Your task to perform on an android device: Add "macbook pro 15 inch" to the cart on target Image 0: 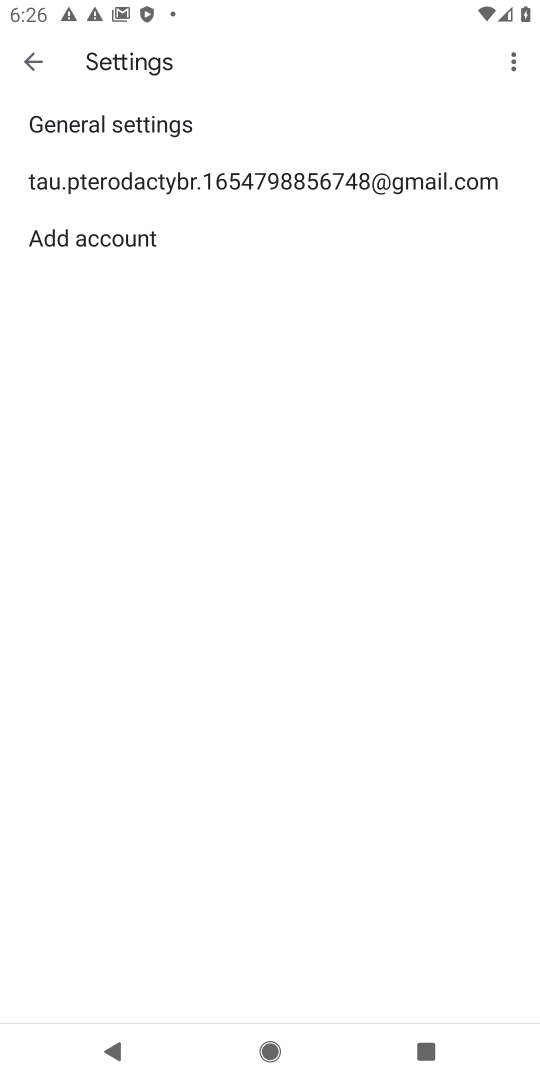
Step 0: press home button
Your task to perform on an android device: Add "macbook pro 15 inch" to the cart on target Image 1: 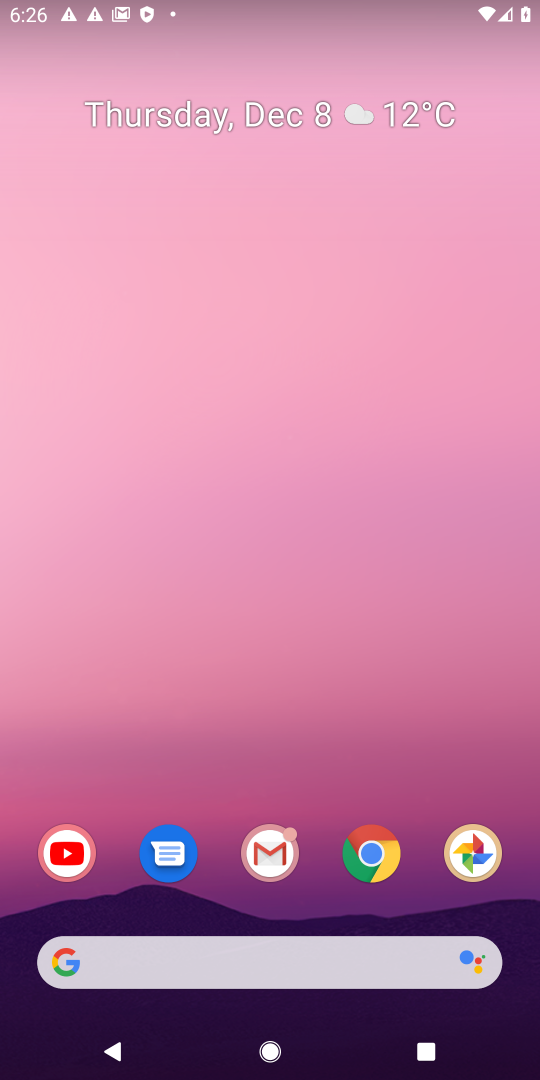
Step 1: click (114, 951)
Your task to perform on an android device: Add "macbook pro 15 inch" to the cart on target Image 2: 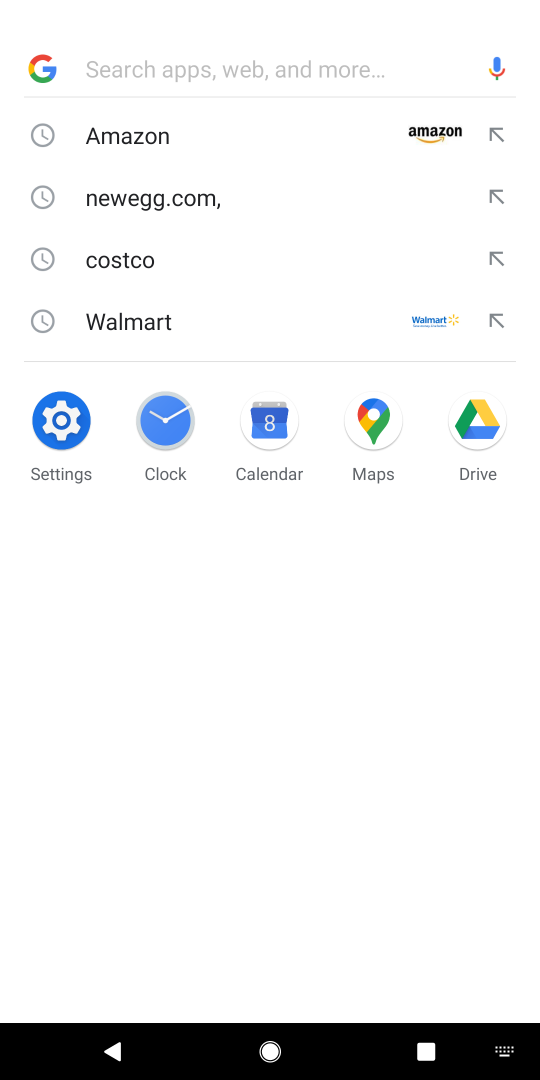
Step 2: type "target"
Your task to perform on an android device: Add "macbook pro 15 inch" to the cart on target Image 3: 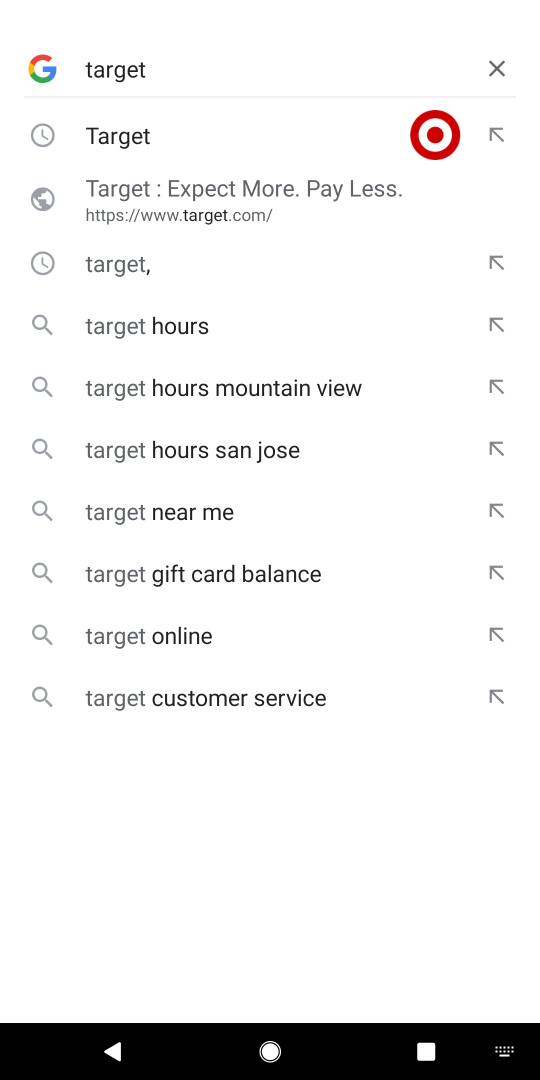
Step 3: click (122, 130)
Your task to perform on an android device: Add "macbook pro 15 inch" to the cart on target Image 4: 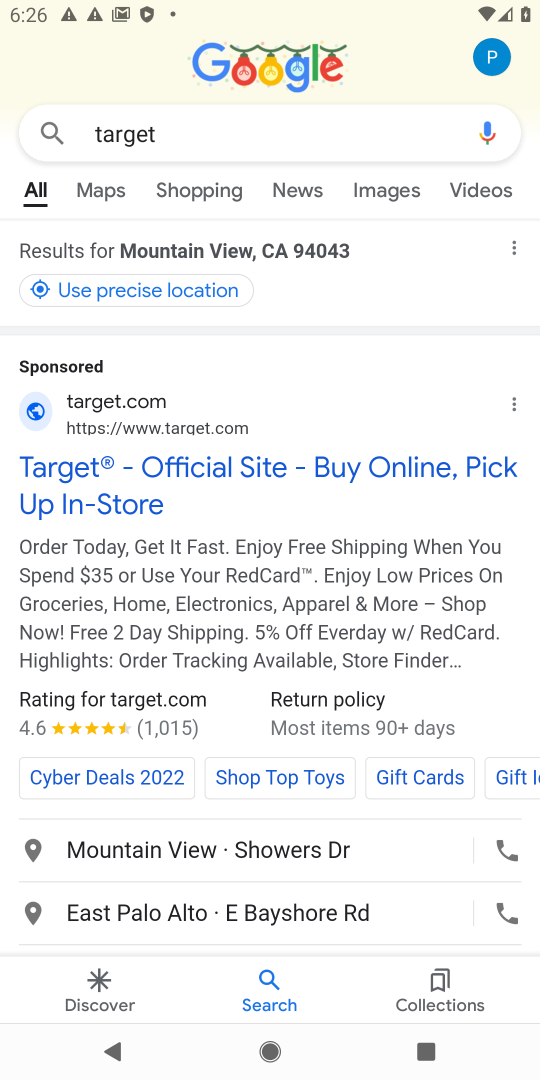
Step 4: click (91, 388)
Your task to perform on an android device: Add "macbook pro 15 inch" to the cart on target Image 5: 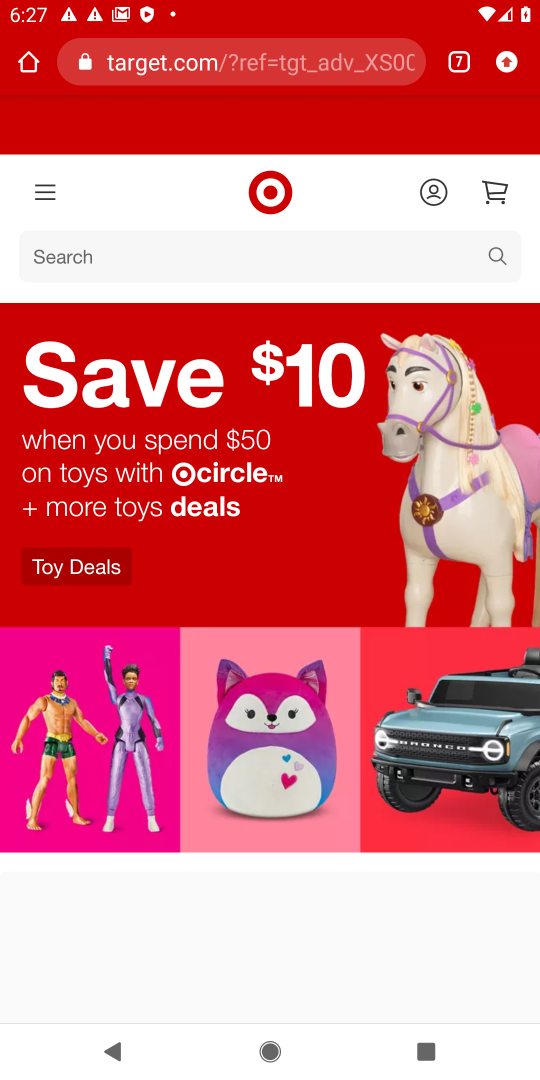
Step 5: click (124, 253)
Your task to perform on an android device: Add "macbook pro 15 inch" to the cart on target Image 6: 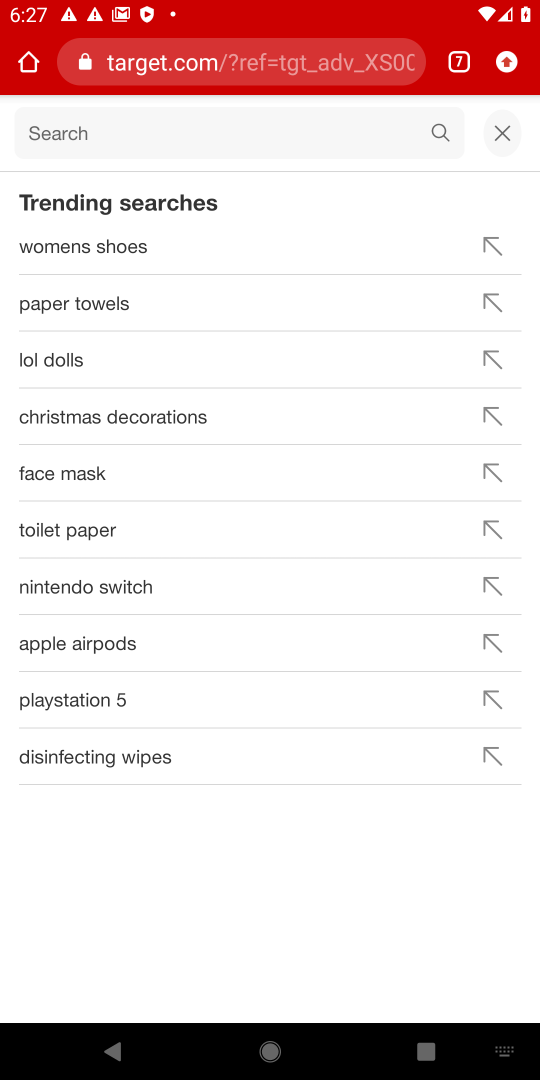
Step 6: type "macbook pro 15 inch"
Your task to perform on an android device: Add "macbook pro 15 inch" to the cart on target Image 7: 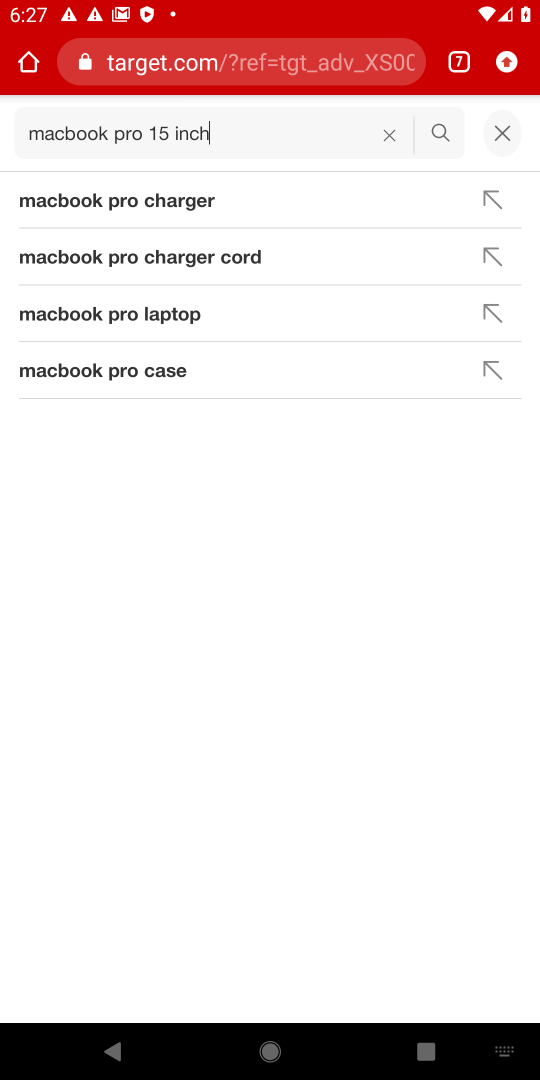
Step 7: click (430, 126)
Your task to perform on an android device: Add "macbook pro 15 inch" to the cart on target Image 8: 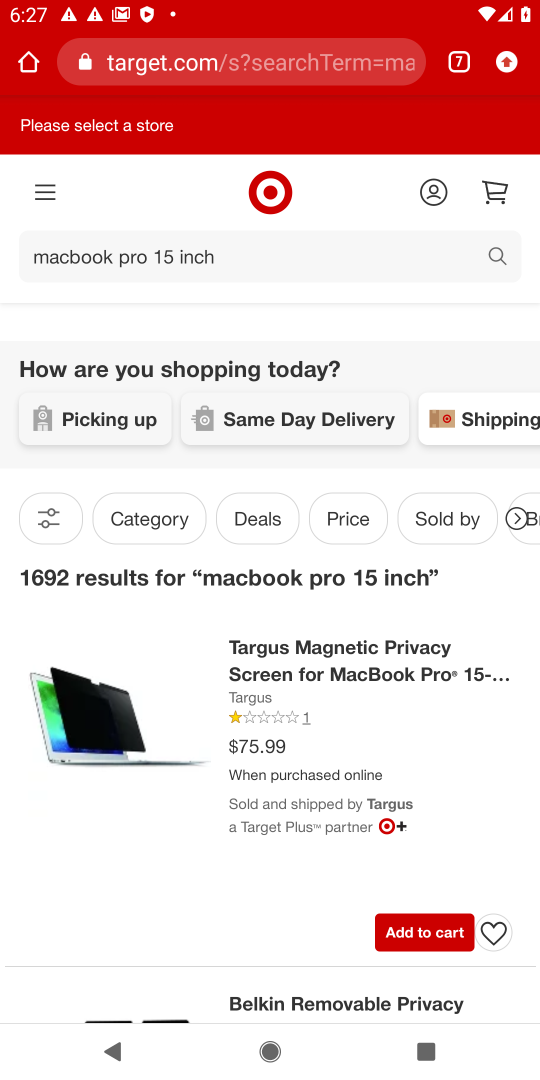
Step 8: click (405, 928)
Your task to perform on an android device: Add "macbook pro 15 inch" to the cart on target Image 9: 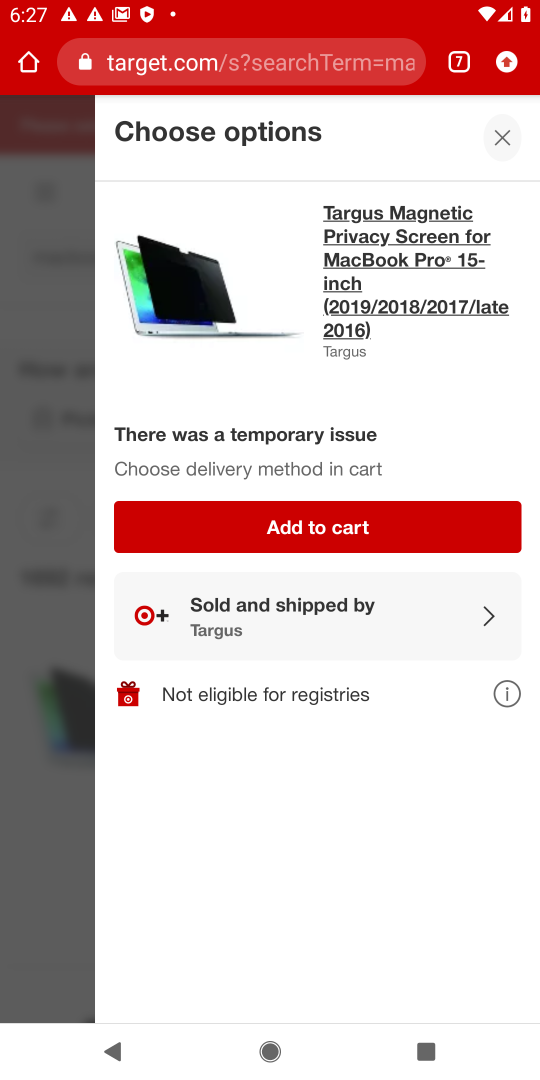
Step 9: click (361, 518)
Your task to perform on an android device: Add "macbook pro 15 inch" to the cart on target Image 10: 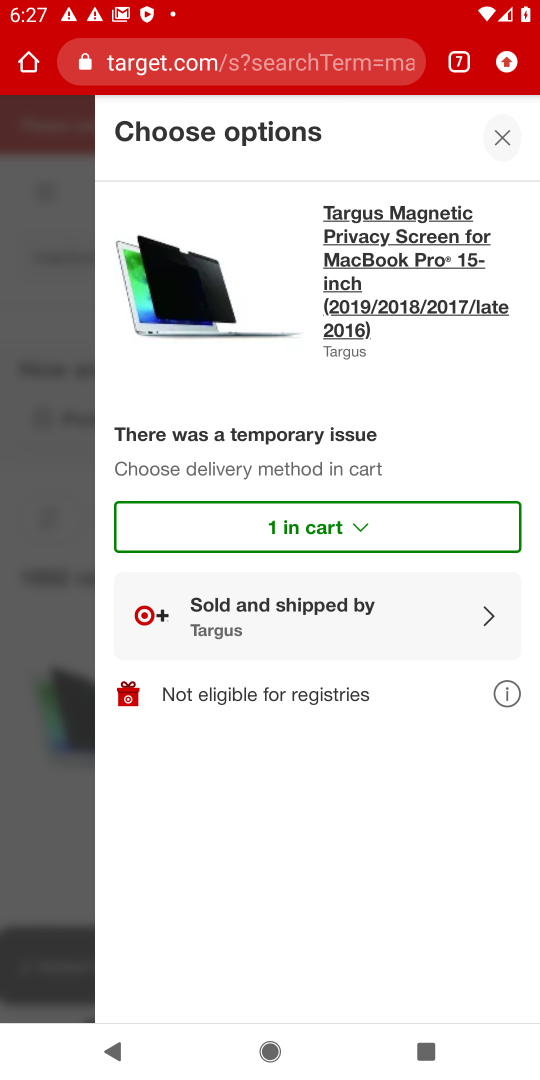
Step 10: task complete